Your task to perform on an android device: Show me productivity apps on the Play Store Image 0: 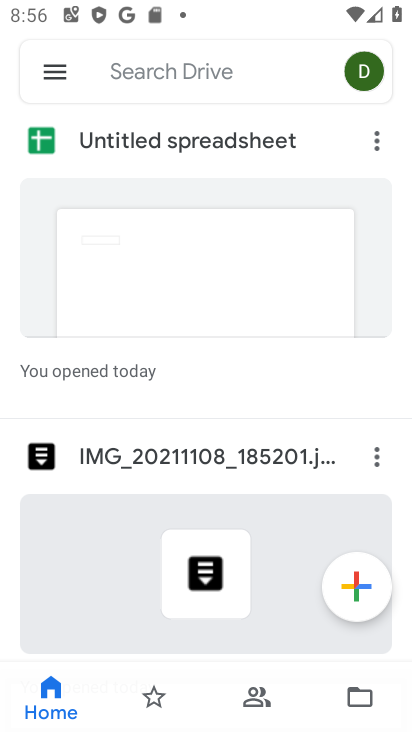
Step 0: press home button
Your task to perform on an android device: Show me productivity apps on the Play Store Image 1: 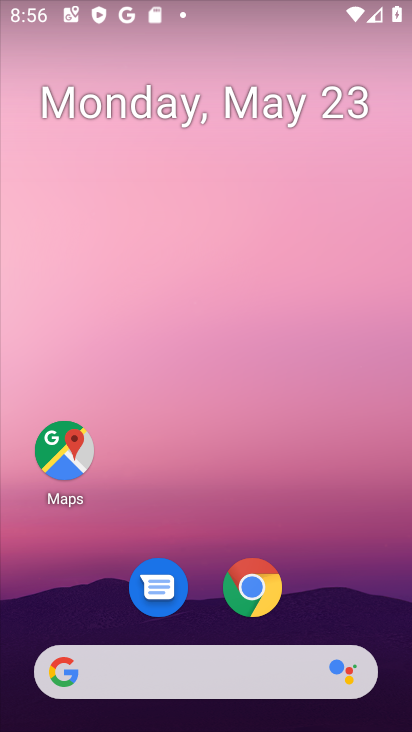
Step 1: drag from (275, 502) to (322, 98)
Your task to perform on an android device: Show me productivity apps on the Play Store Image 2: 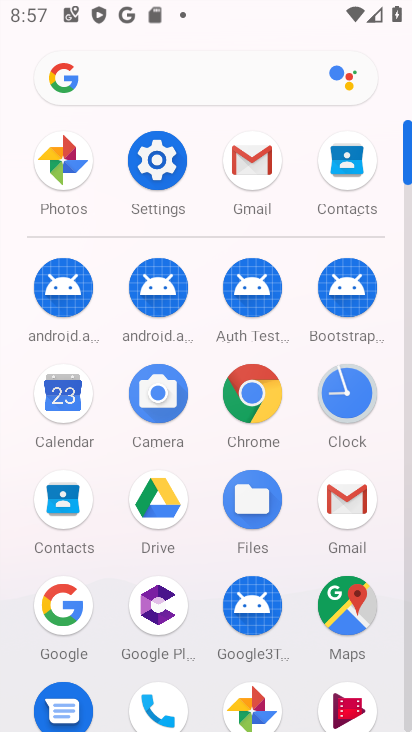
Step 2: drag from (184, 568) to (267, 169)
Your task to perform on an android device: Show me productivity apps on the Play Store Image 3: 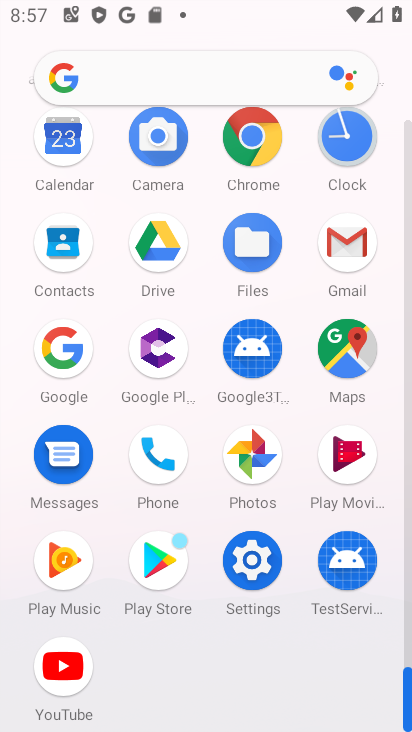
Step 3: click (163, 563)
Your task to perform on an android device: Show me productivity apps on the Play Store Image 4: 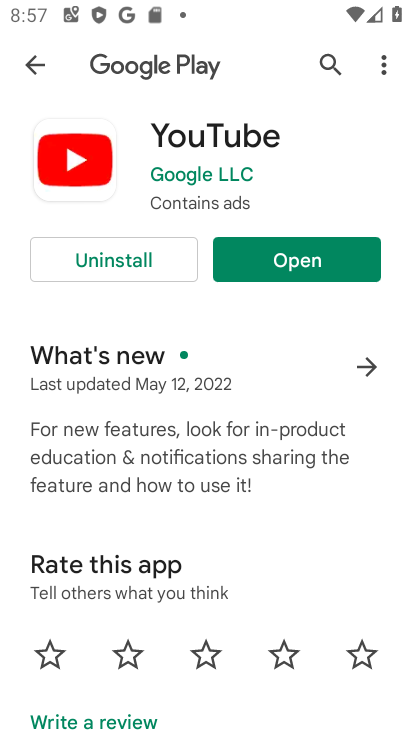
Step 4: click (29, 57)
Your task to perform on an android device: Show me productivity apps on the Play Store Image 5: 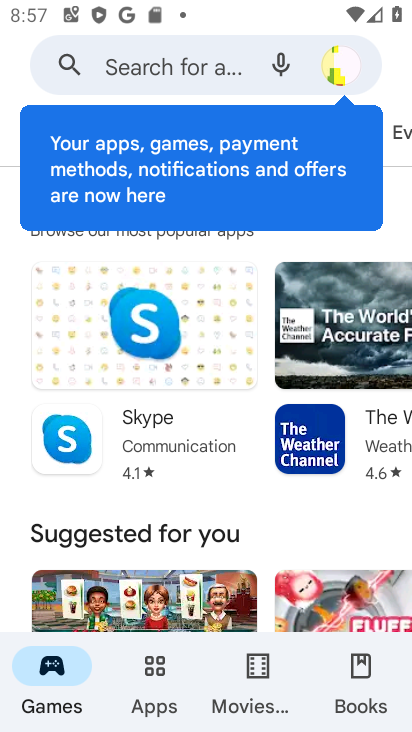
Step 5: click (156, 692)
Your task to perform on an android device: Show me productivity apps on the Play Store Image 6: 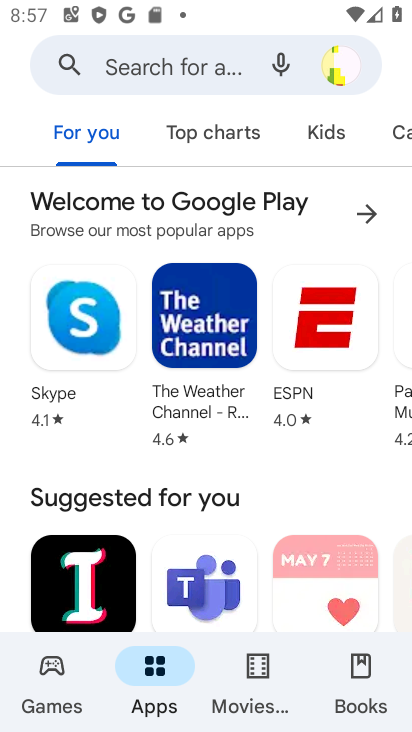
Step 6: click (173, 662)
Your task to perform on an android device: Show me productivity apps on the Play Store Image 7: 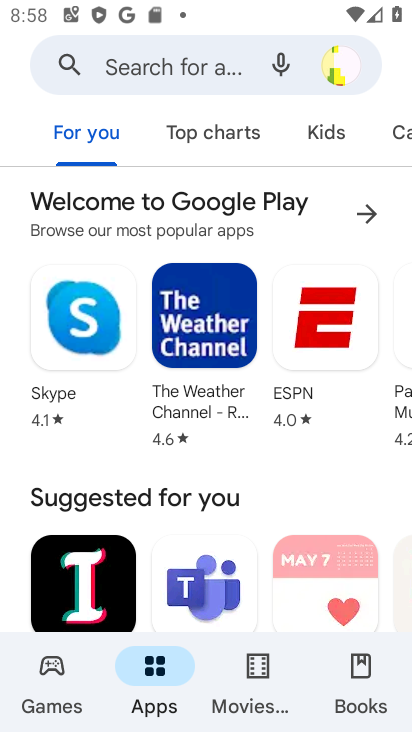
Step 7: drag from (287, 559) to (346, 101)
Your task to perform on an android device: Show me productivity apps on the Play Store Image 8: 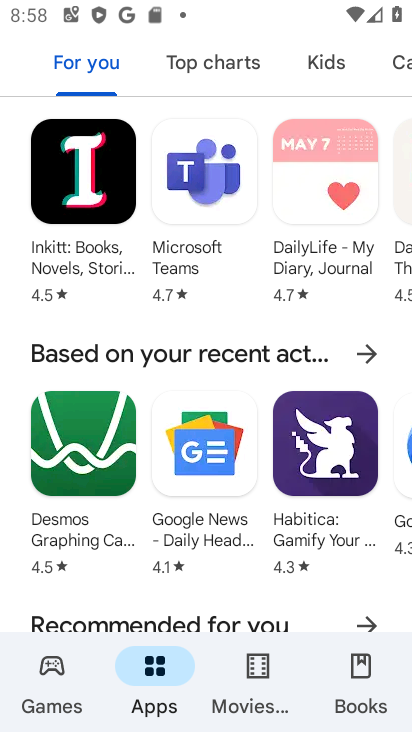
Step 8: drag from (261, 507) to (333, 30)
Your task to perform on an android device: Show me productivity apps on the Play Store Image 9: 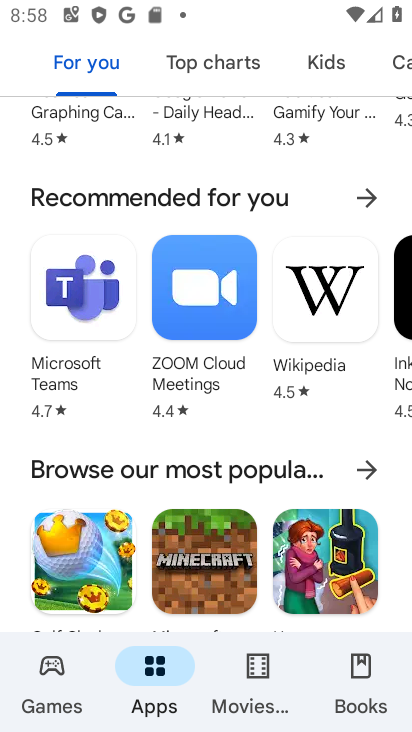
Step 9: drag from (173, 538) to (271, 56)
Your task to perform on an android device: Show me productivity apps on the Play Store Image 10: 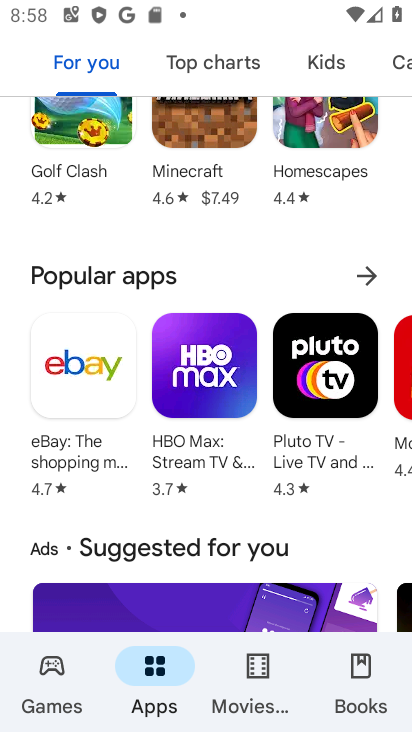
Step 10: drag from (161, 563) to (295, 40)
Your task to perform on an android device: Show me productivity apps on the Play Store Image 11: 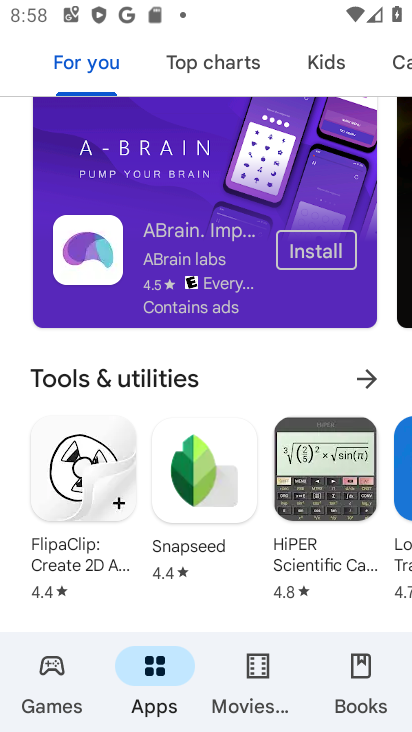
Step 11: drag from (199, 526) to (279, 115)
Your task to perform on an android device: Show me productivity apps on the Play Store Image 12: 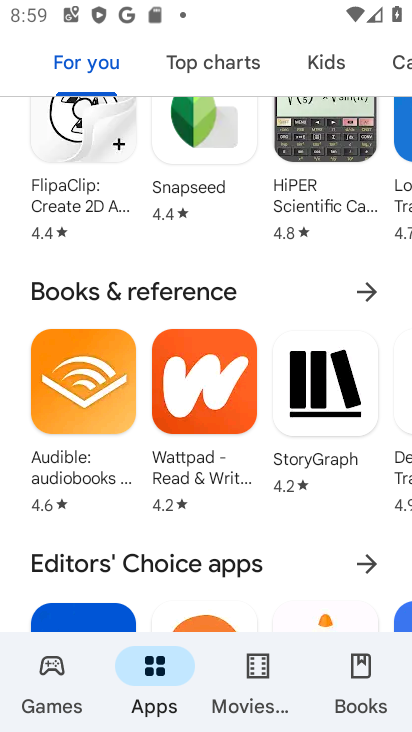
Step 12: drag from (219, 651) to (286, 189)
Your task to perform on an android device: Show me productivity apps on the Play Store Image 13: 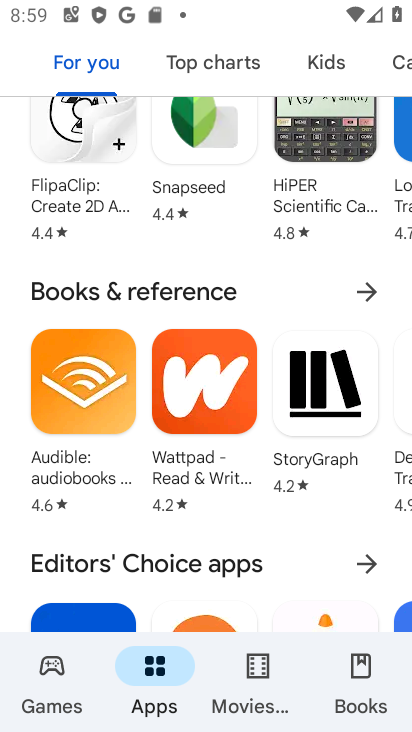
Step 13: drag from (205, 556) to (268, 110)
Your task to perform on an android device: Show me productivity apps on the Play Store Image 14: 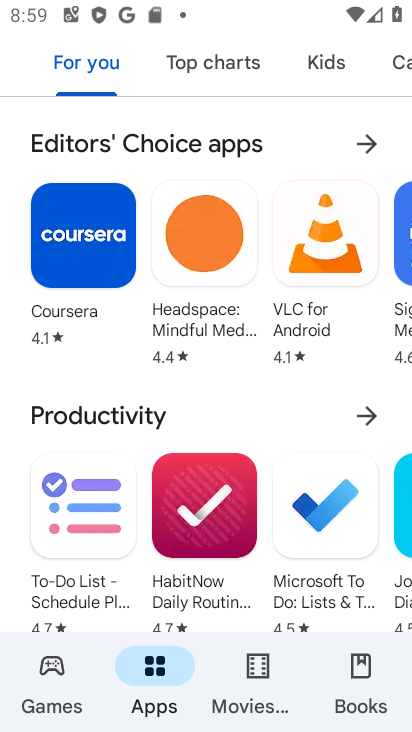
Step 14: click (363, 417)
Your task to perform on an android device: Show me productivity apps on the Play Store Image 15: 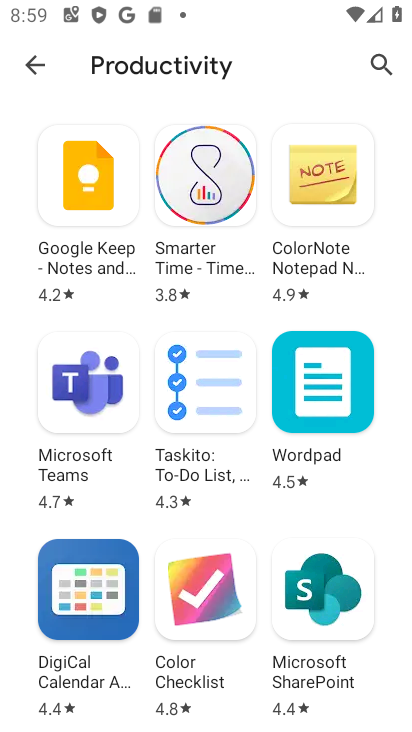
Step 15: task complete